Your task to perform on an android device: Go to Yahoo.com Image 0: 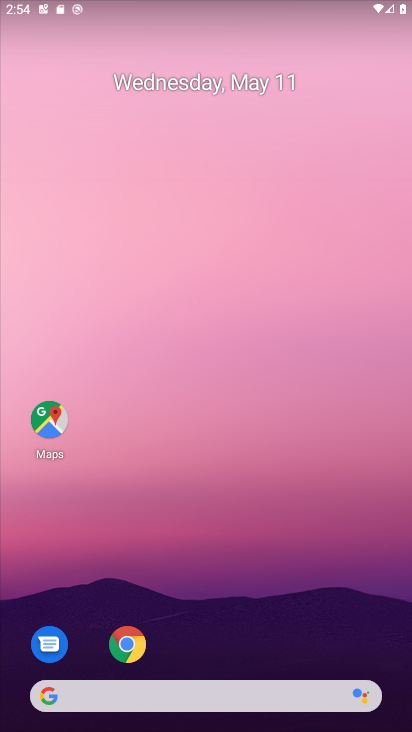
Step 0: click (118, 639)
Your task to perform on an android device: Go to Yahoo.com Image 1: 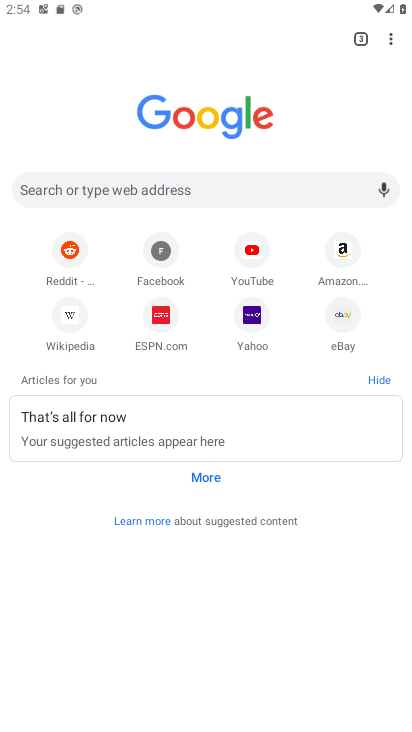
Step 1: click (255, 312)
Your task to perform on an android device: Go to Yahoo.com Image 2: 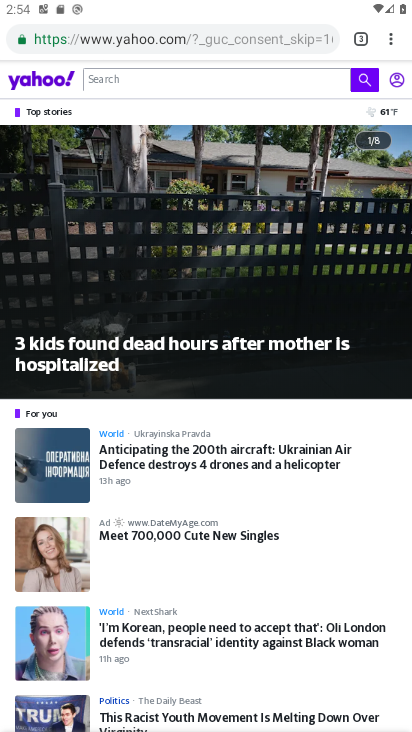
Step 2: task complete